Your task to perform on an android device: Go to Amazon Image 0: 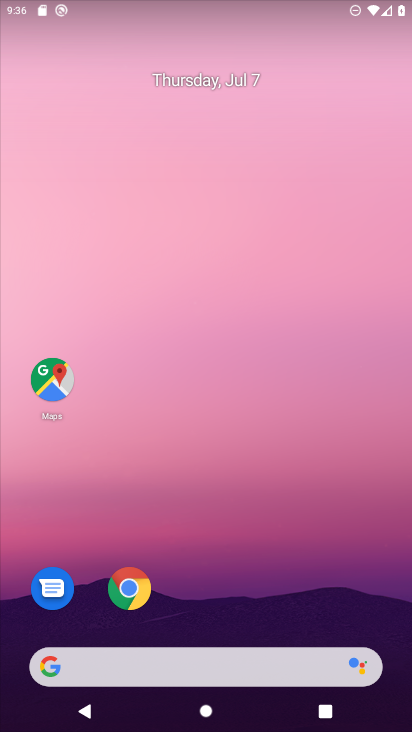
Step 0: click (130, 601)
Your task to perform on an android device: Go to Amazon Image 1: 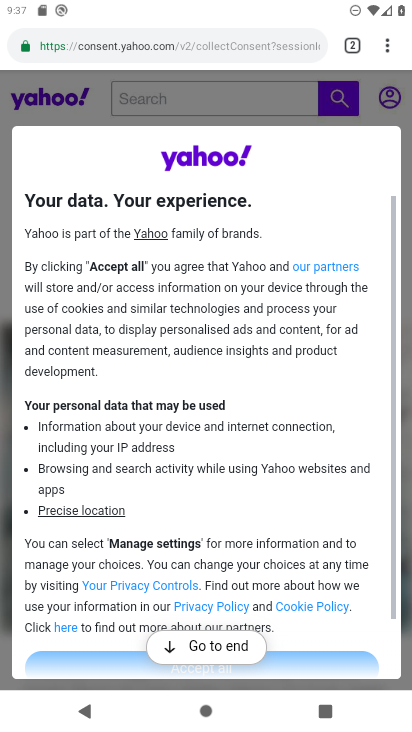
Step 1: click (353, 43)
Your task to perform on an android device: Go to Amazon Image 2: 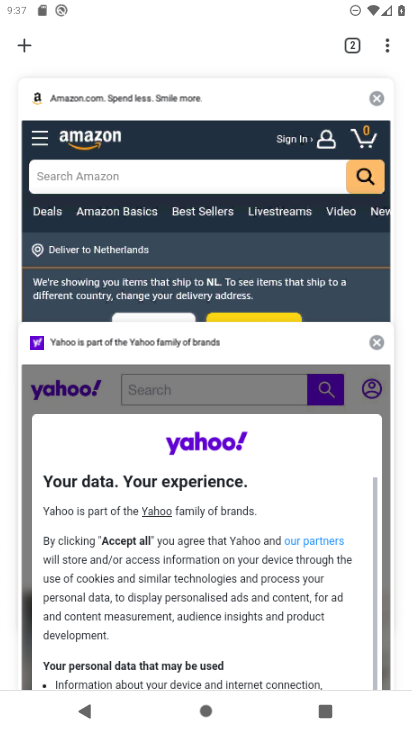
Step 2: click (136, 122)
Your task to perform on an android device: Go to Amazon Image 3: 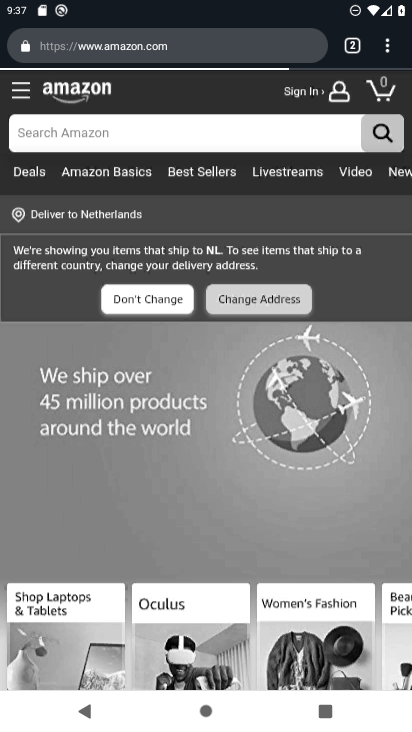
Step 3: task complete